Your task to perform on an android device: Open maps Image 0: 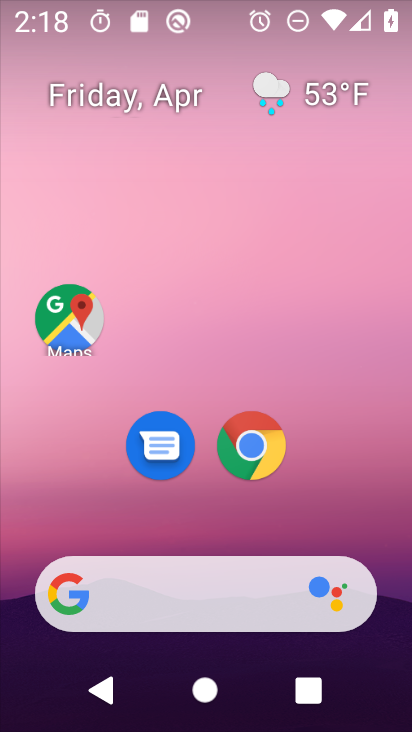
Step 0: drag from (364, 426) to (359, 137)
Your task to perform on an android device: Open maps Image 1: 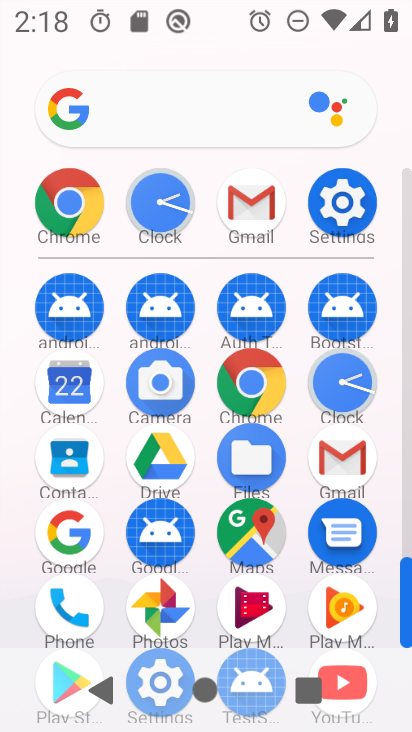
Step 1: click (265, 543)
Your task to perform on an android device: Open maps Image 2: 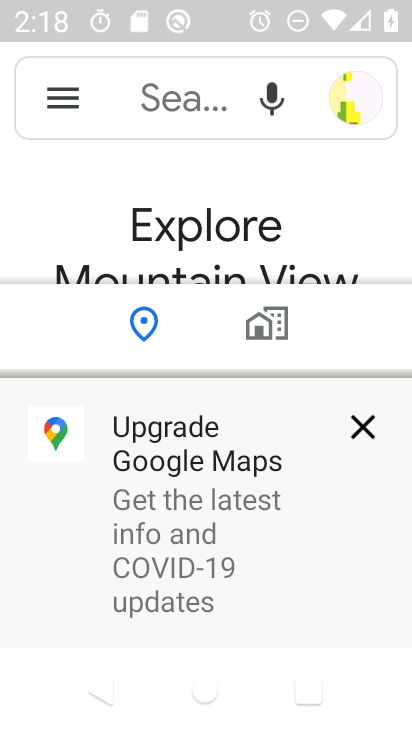
Step 2: task complete